Your task to perform on an android device: When is my next appointment? Image 0: 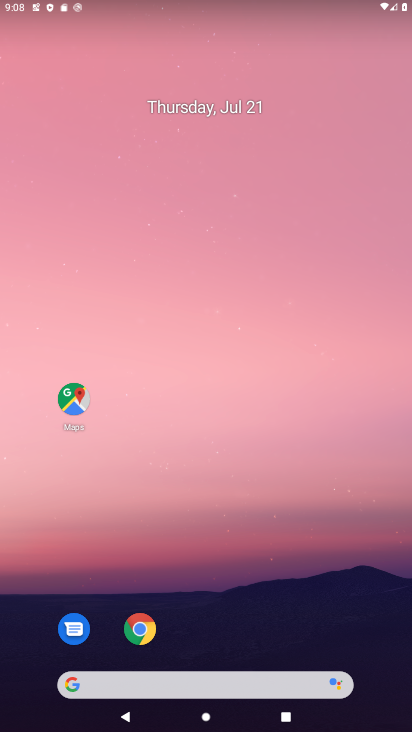
Step 0: click (168, 117)
Your task to perform on an android device: When is my next appointment? Image 1: 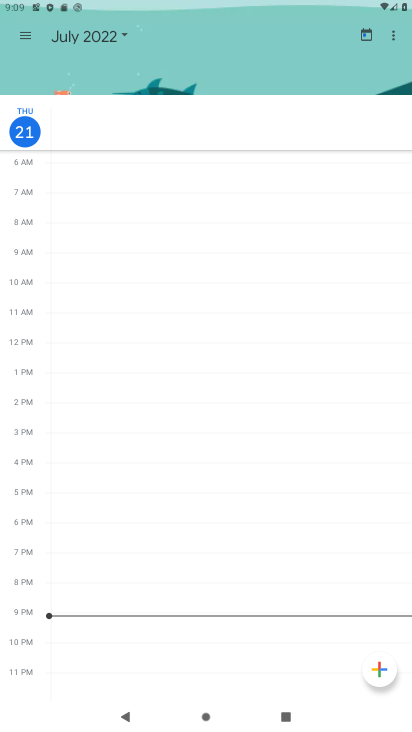
Step 1: task complete